Your task to perform on an android device: add a label to a message in the gmail app Image 0: 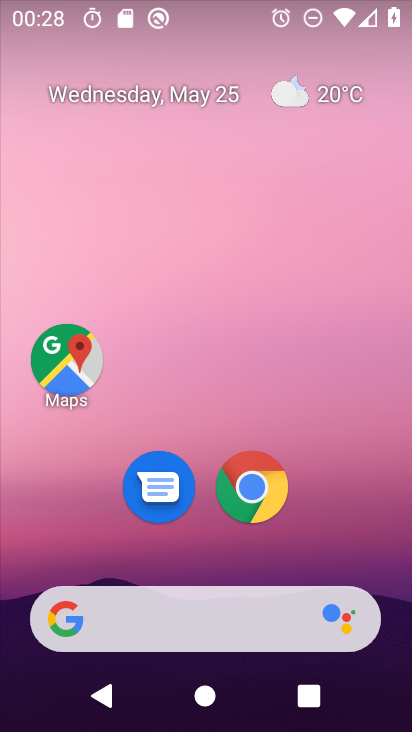
Step 0: drag from (363, 579) to (324, 12)
Your task to perform on an android device: add a label to a message in the gmail app Image 1: 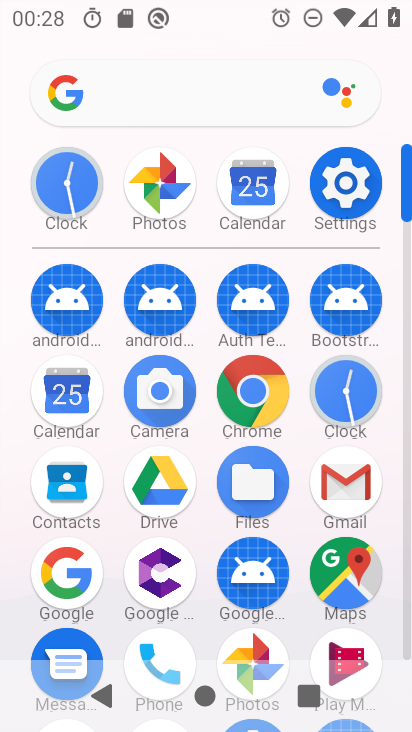
Step 1: click (339, 488)
Your task to perform on an android device: add a label to a message in the gmail app Image 2: 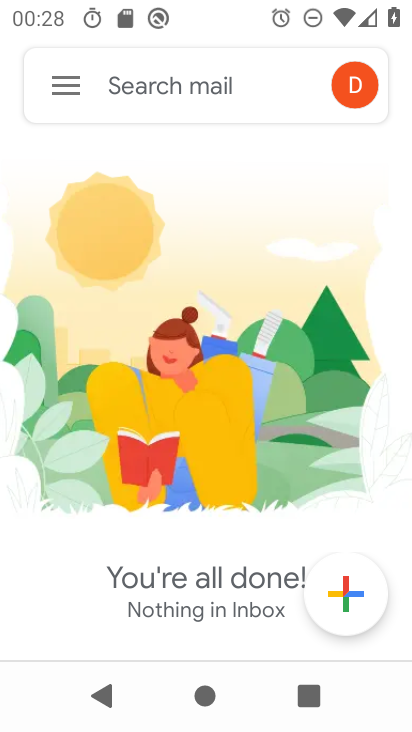
Step 2: click (72, 89)
Your task to perform on an android device: add a label to a message in the gmail app Image 3: 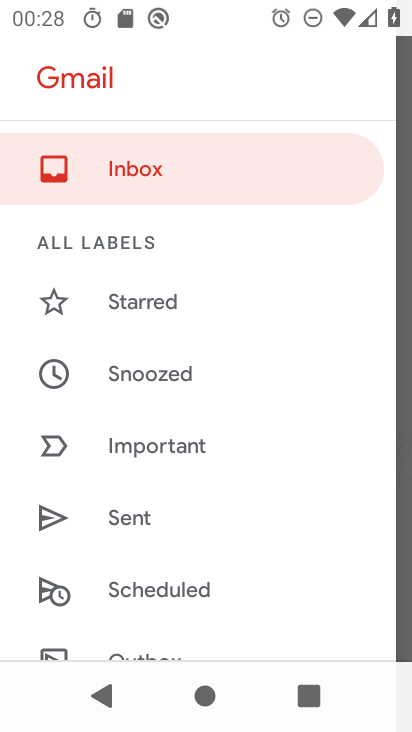
Step 3: drag from (231, 548) to (212, 230)
Your task to perform on an android device: add a label to a message in the gmail app Image 4: 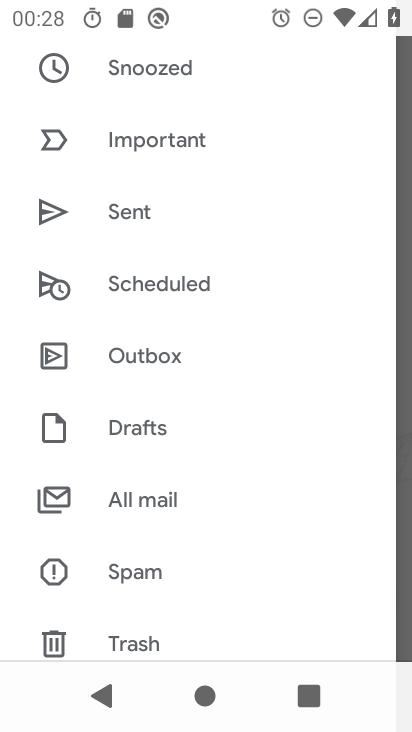
Step 4: click (135, 500)
Your task to perform on an android device: add a label to a message in the gmail app Image 5: 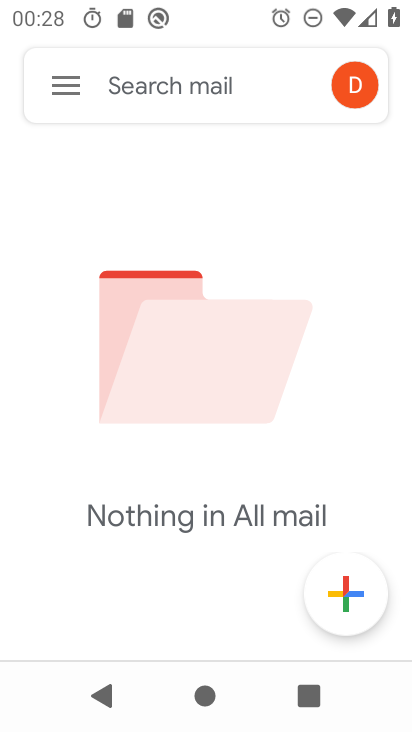
Step 5: task complete